Your task to perform on an android device: turn off data saver in the chrome app Image 0: 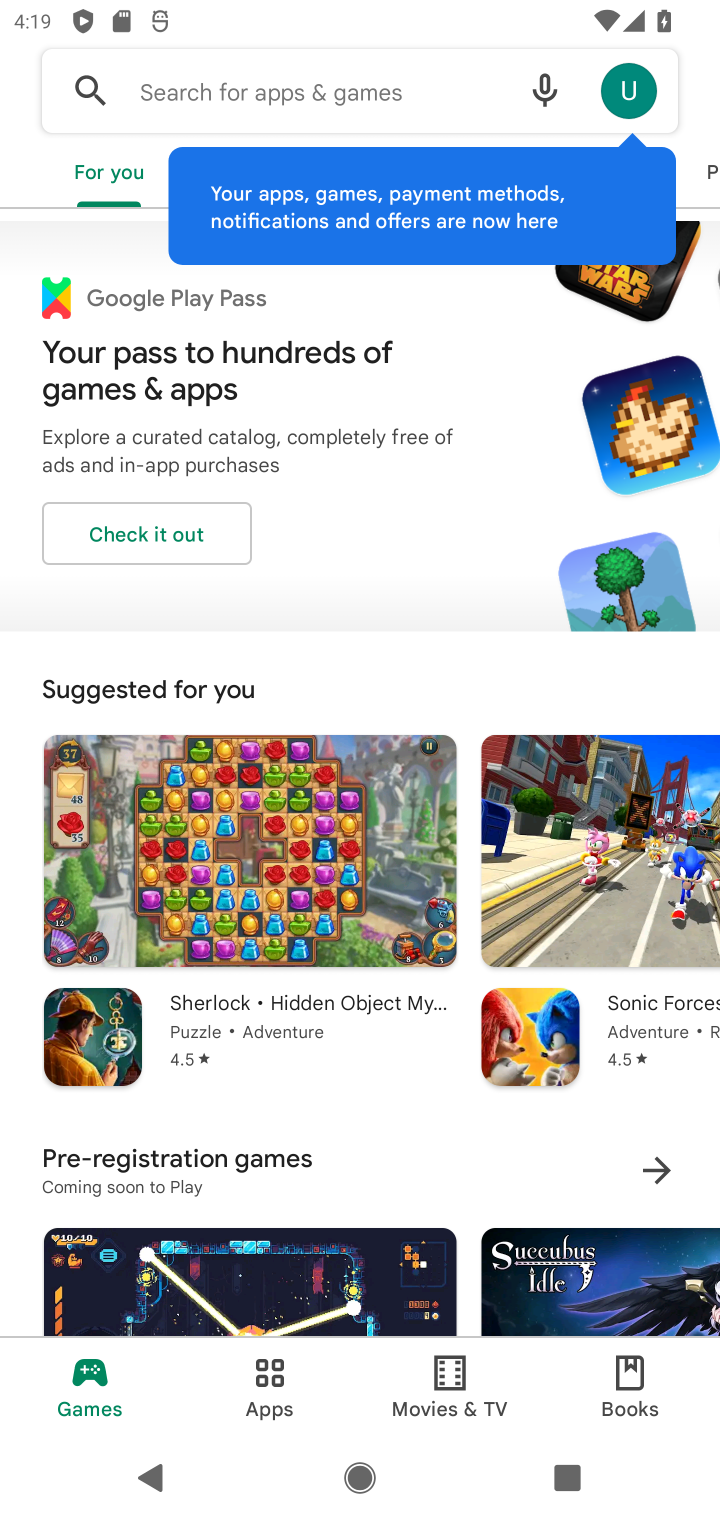
Step 0: press home button
Your task to perform on an android device: turn off data saver in the chrome app Image 1: 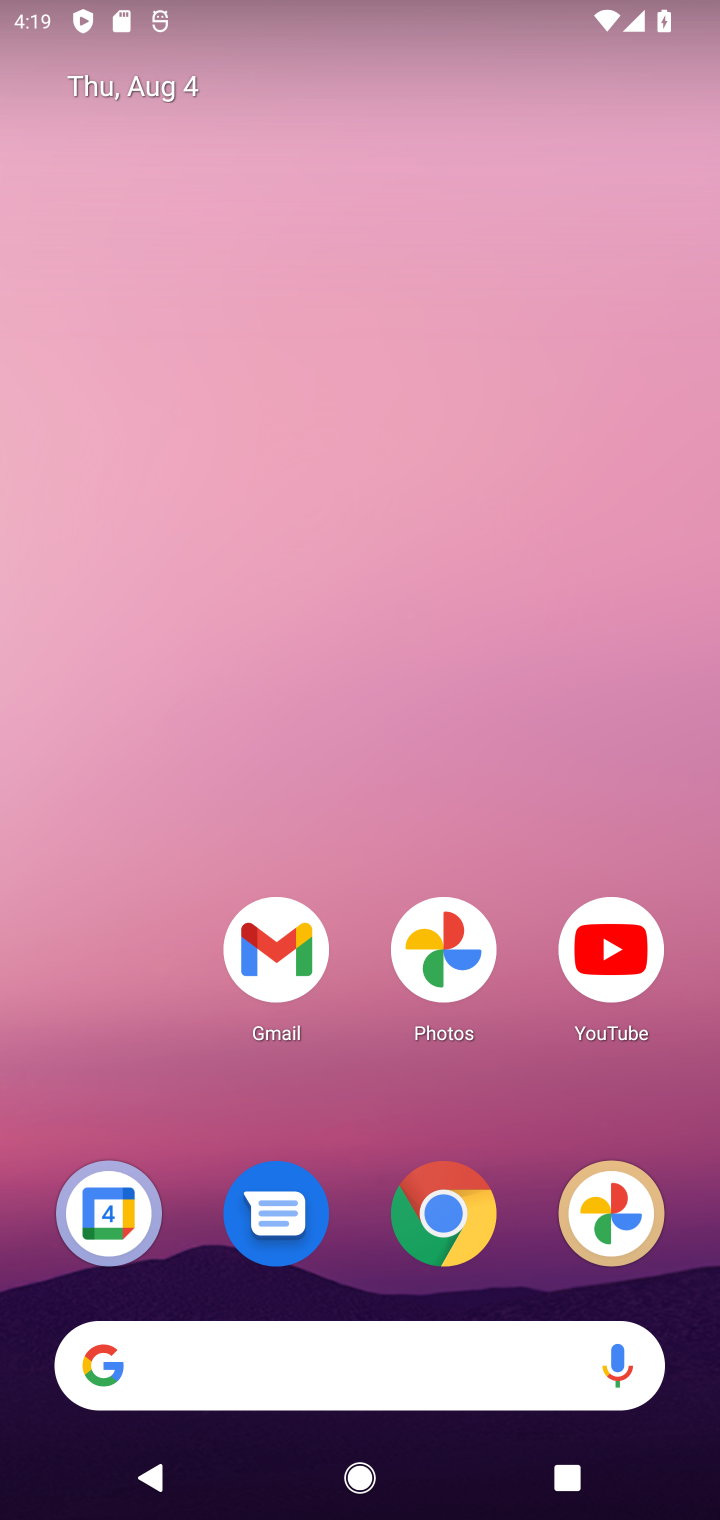
Step 1: drag from (174, 1122) to (213, 303)
Your task to perform on an android device: turn off data saver in the chrome app Image 2: 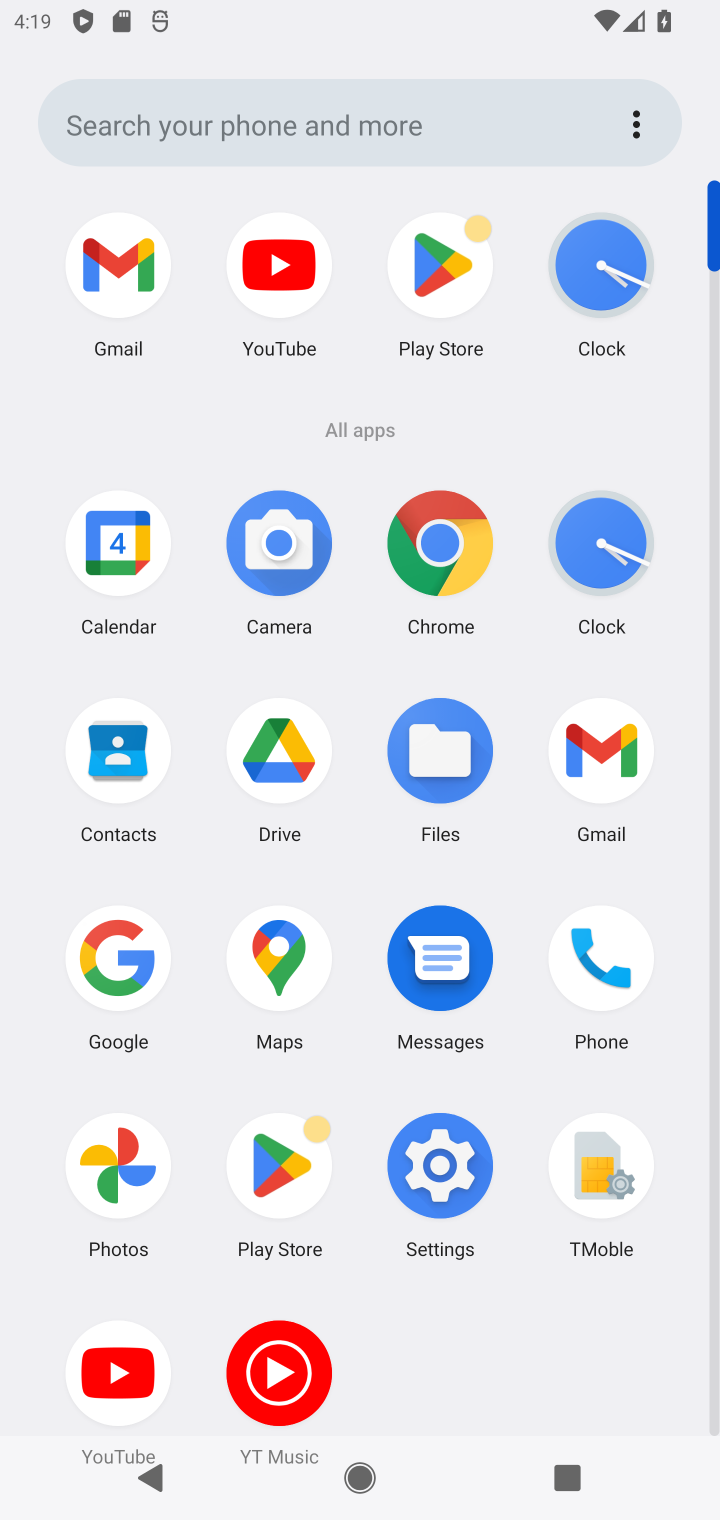
Step 2: click (445, 560)
Your task to perform on an android device: turn off data saver in the chrome app Image 3: 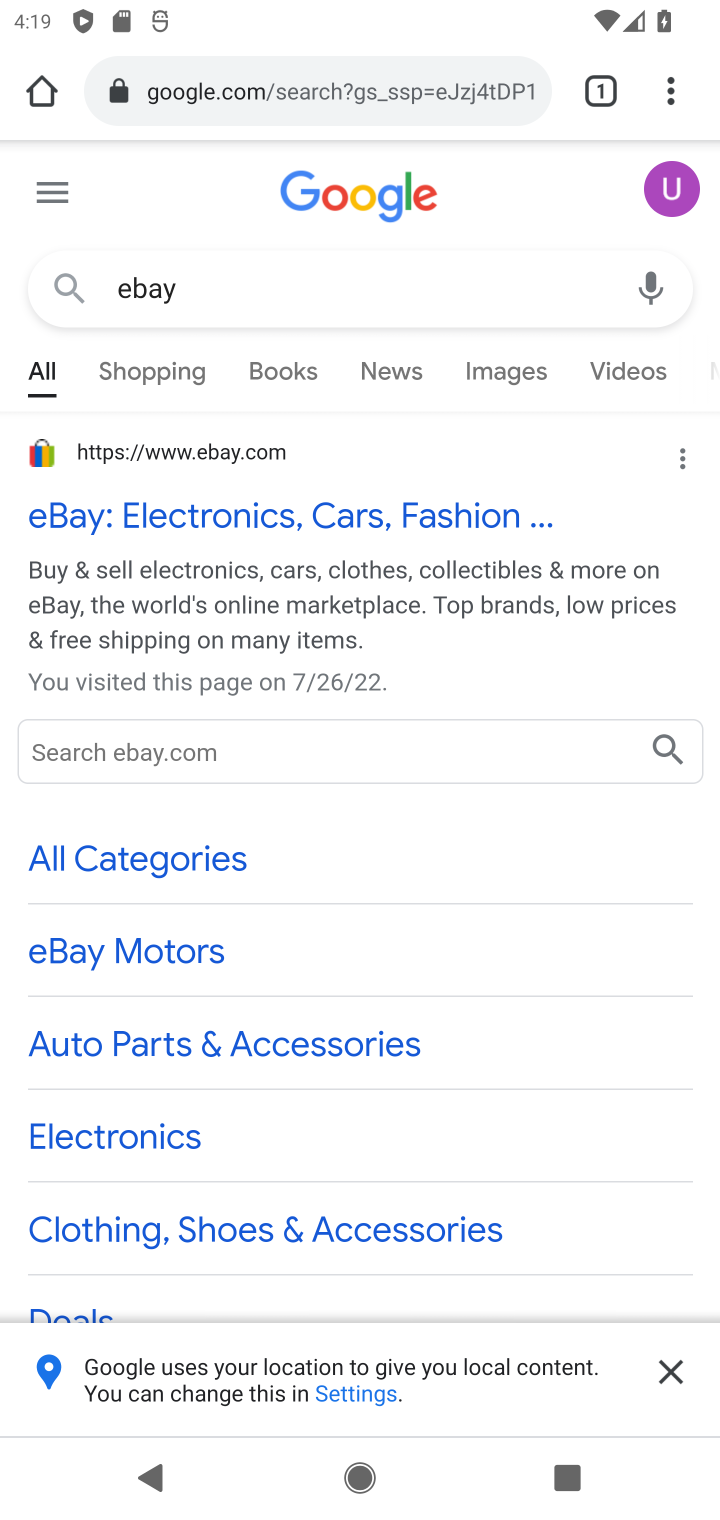
Step 3: click (673, 90)
Your task to perform on an android device: turn off data saver in the chrome app Image 4: 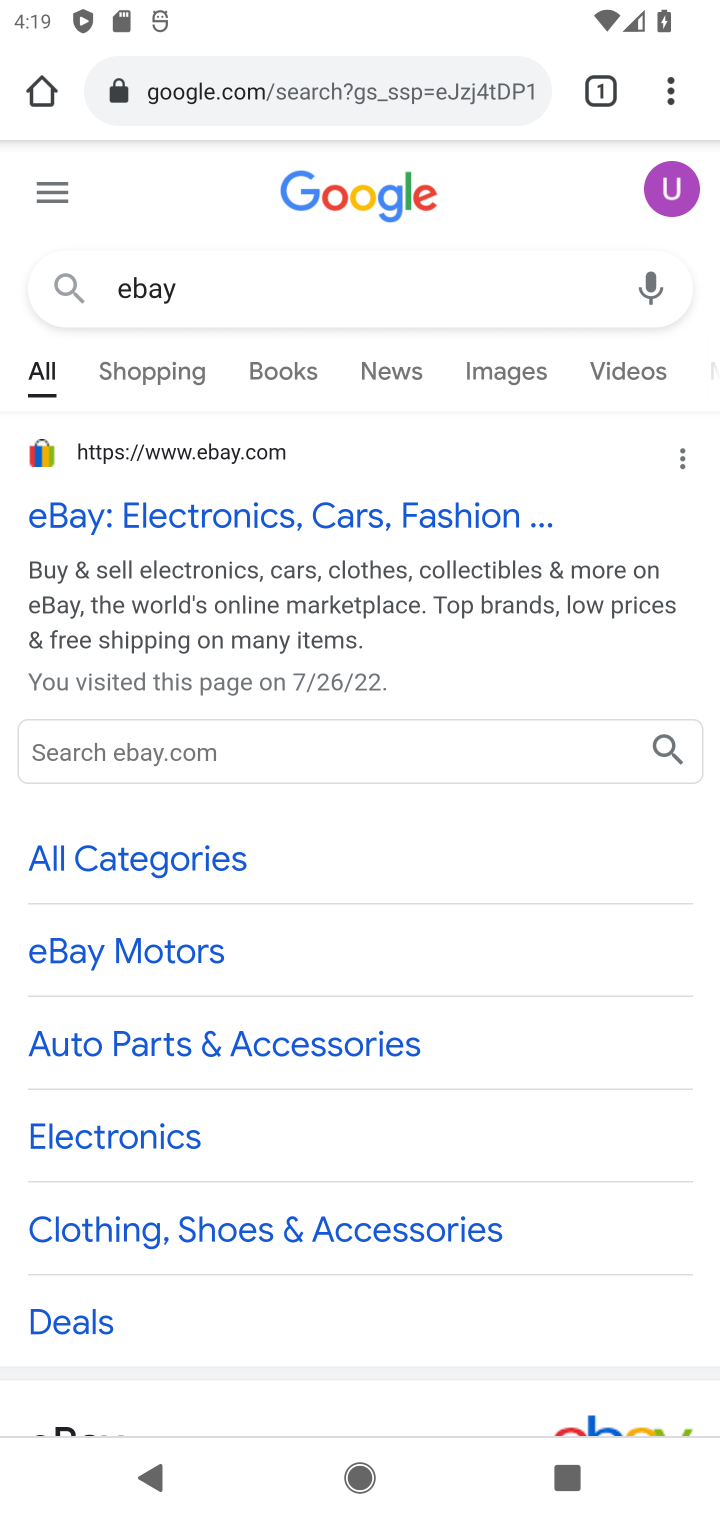
Step 4: click (664, 99)
Your task to perform on an android device: turn off data saver in the chrome app Image 5: 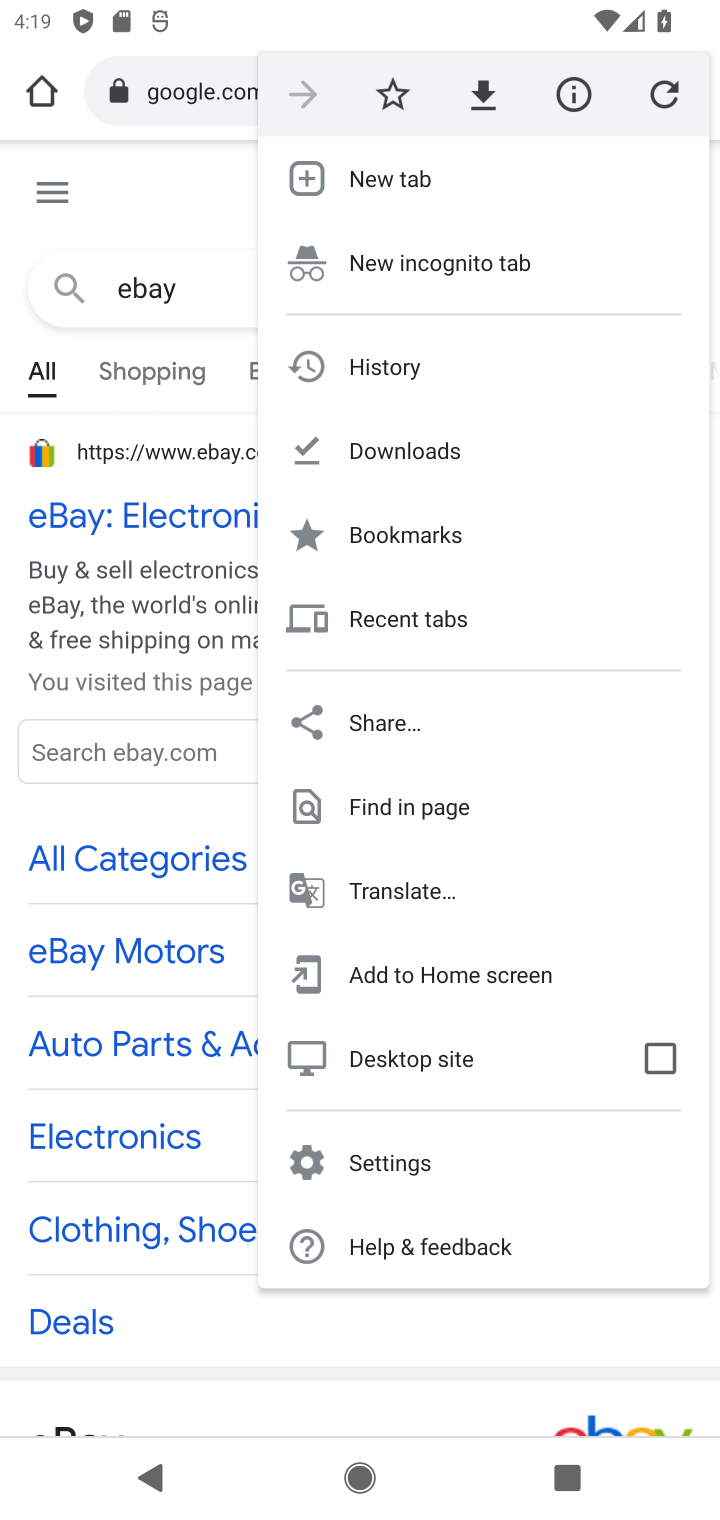
Step 5: click (431, 1155)
Your task to perform on an android device: turn off data saver in the chrome app Image 6: 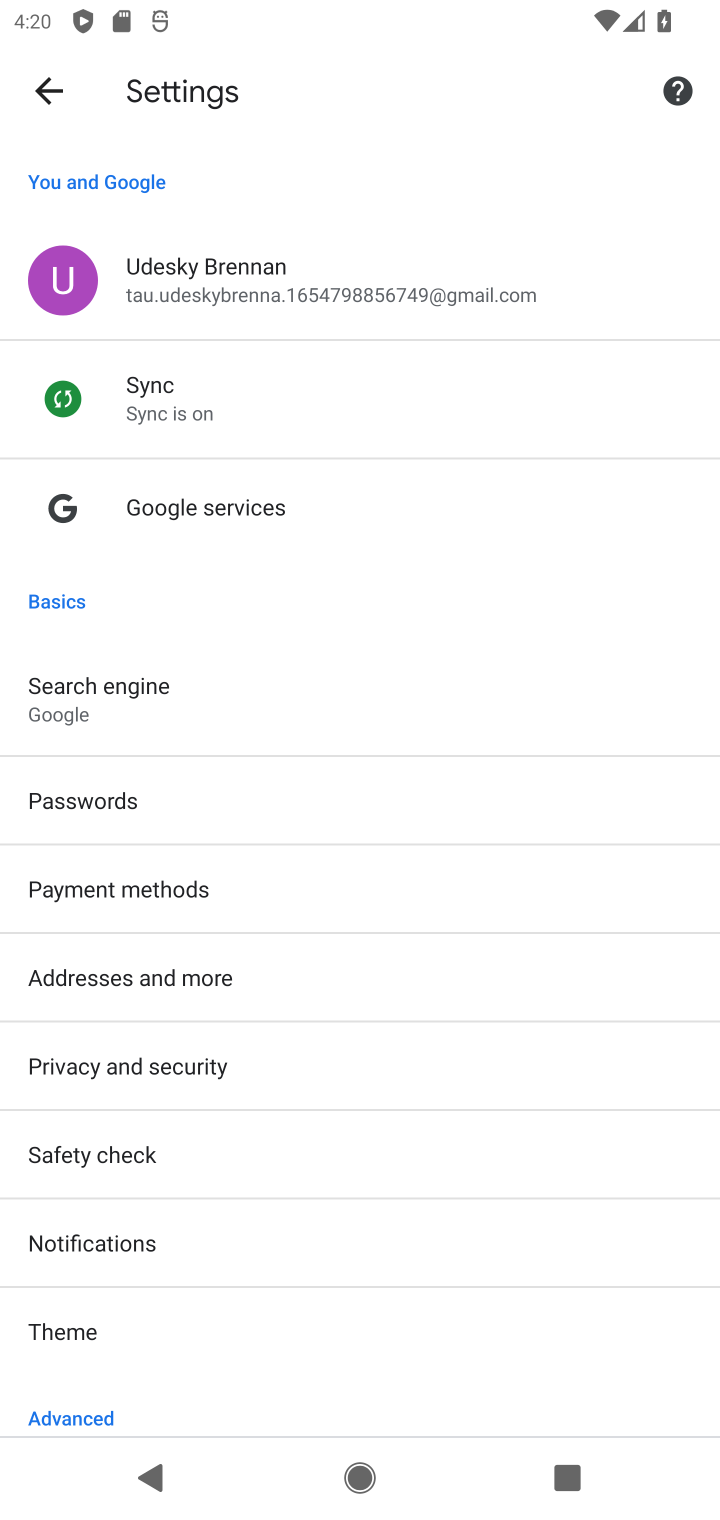
Step 6: drag from (502, 1049) to (503, 537)
Your task to perform on an android device: turn off data saver in the chrome app Image 7: 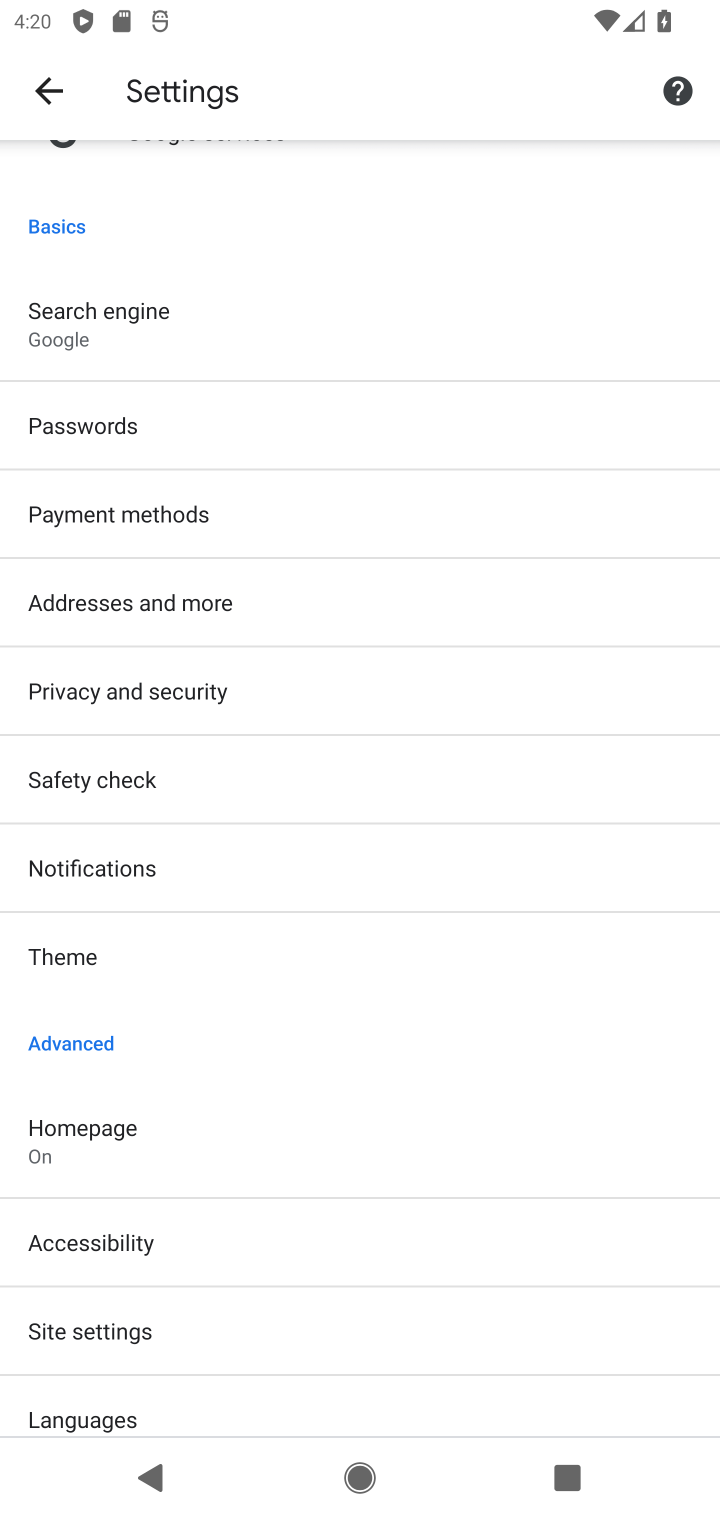
Step 7: drag from (524, 1070) to (523, 662)
Your task to perform on an android device: turn off data saver in the chrome app Image 8: 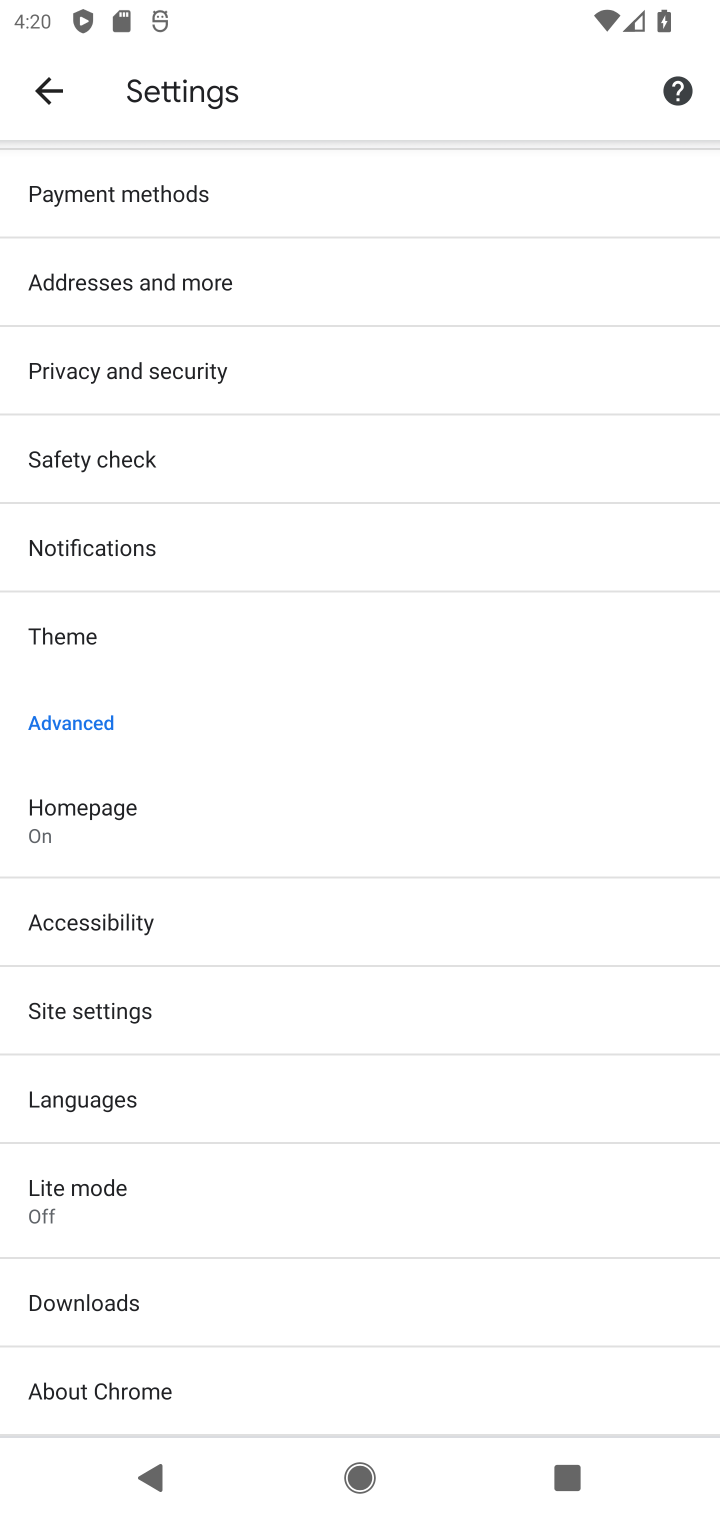
Step 8: drag from (541, 1171) to (515, 752)
Your task to perform on an android device: turn off data saver in the chrome app Image 9: 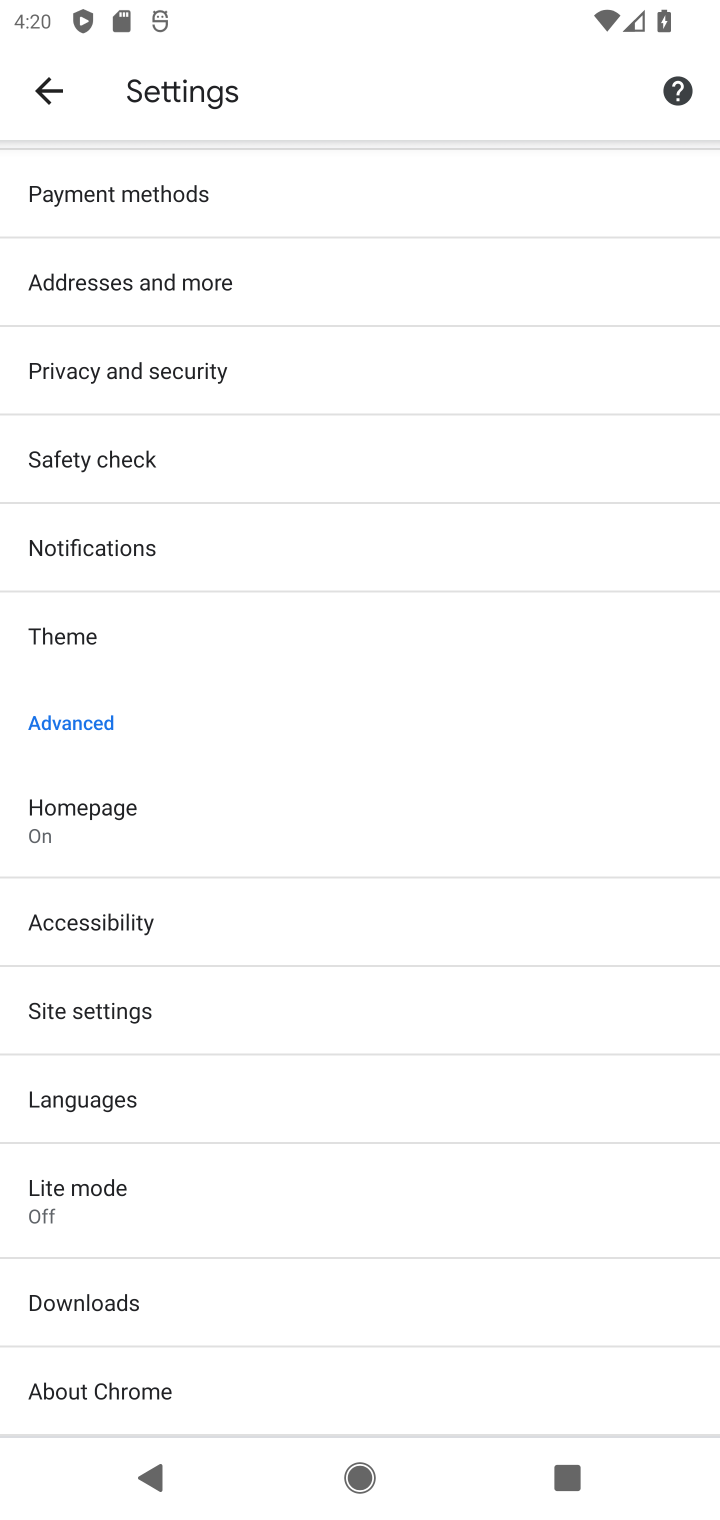
Step 9: click (470, 1179)
Your task to perform on an android device: turn off data saver in the chrome app Image 10: 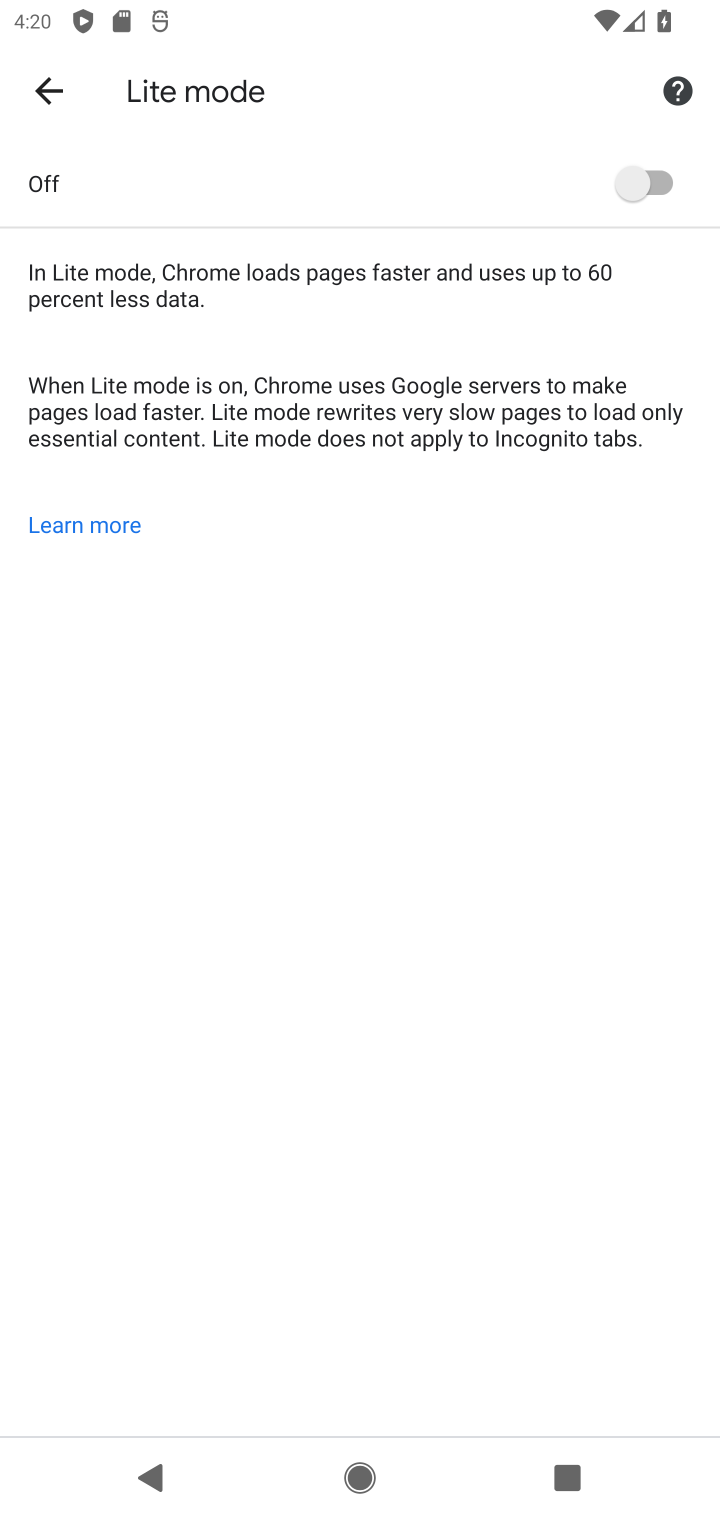
Step 10: task complete